Your task to perform on an android device: Show me productivity apps on the Play Store Image 0: 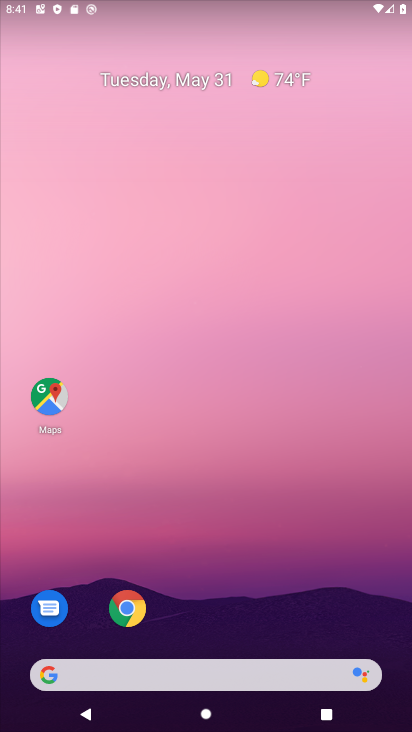
Step 0: drag from (201, 635) to (46, 39)
Your task to perform on an android device: Show me productivity apps on the Play Store Image 1: 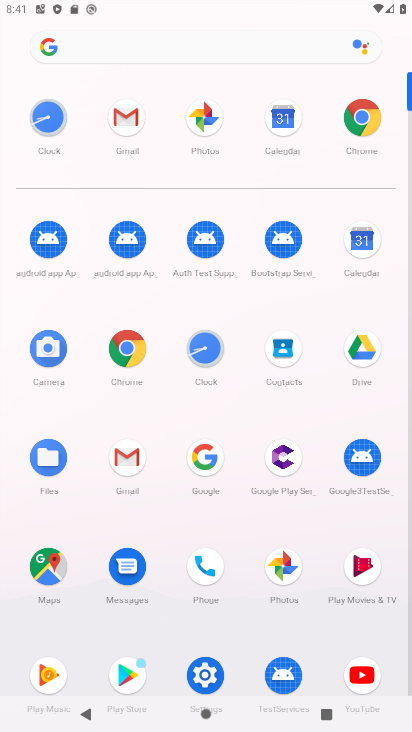
Step 1: click (131, 665)
Your task to perform on an android device: Show me productivity apps on the Play Store Image 2: 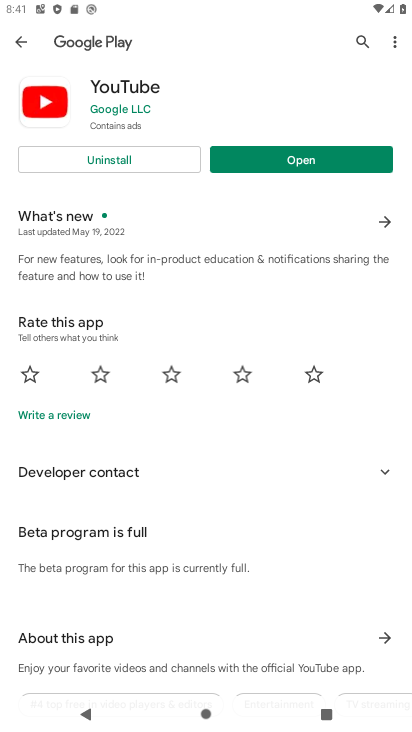
Step 2: click (25, 44)
Your task to perform on an android device: Show me productivity apps on the Play Store Image 3: 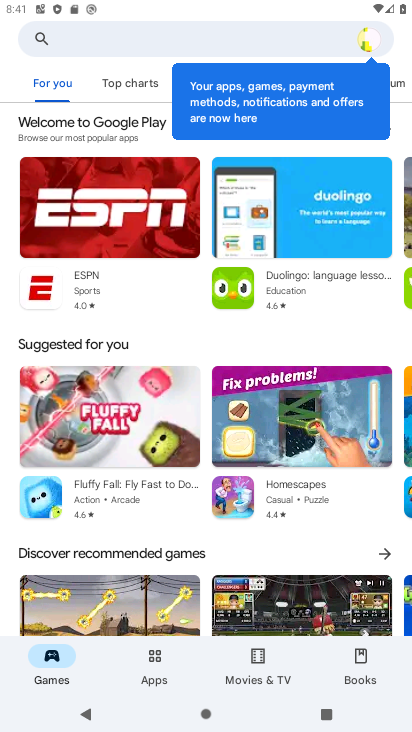
Step 3: click (152, 666)
Your task to perform on an android device: Show me productivity apps on the Play Store Image 4: 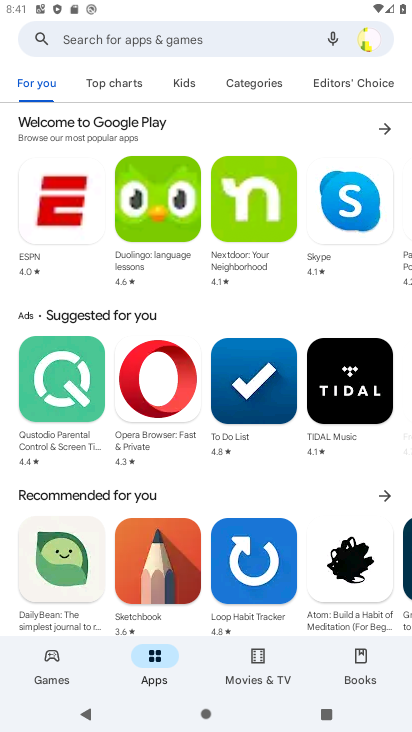
Step 4: click (244, 72)
Your task to perform on an android device: Show me productivity apps on the Play Store Image 5: 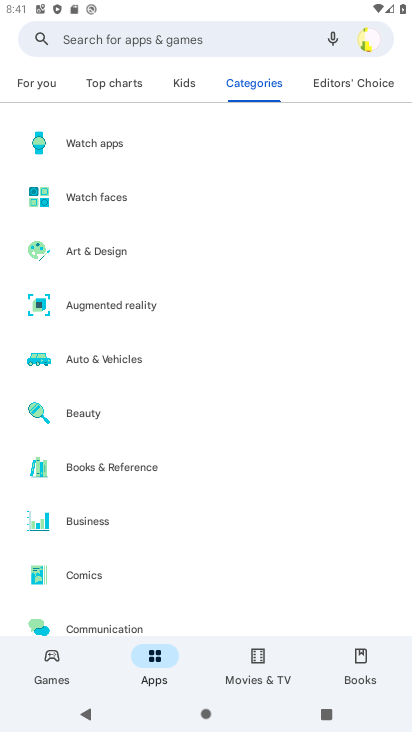
Step 5: drag from (205, 532) to (39, 17)
Your task to perform on an android device: Show me productivity apps on the Play Store Image 6: 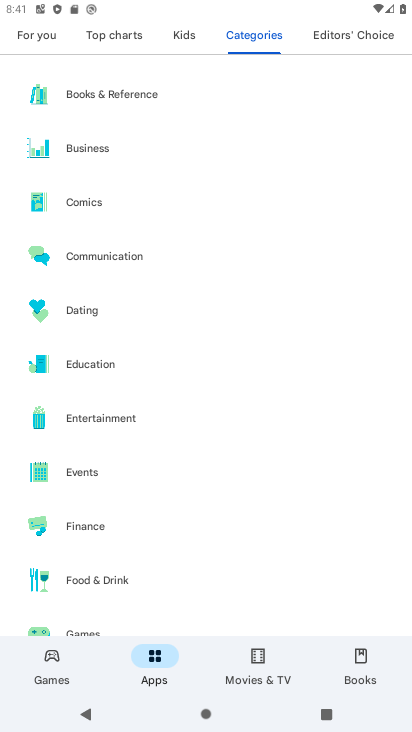
Step 6: drag from (146, 601) to (75, 135)
Your task to perform on an android device: Show me productivity apps on the Play Store Image 7: 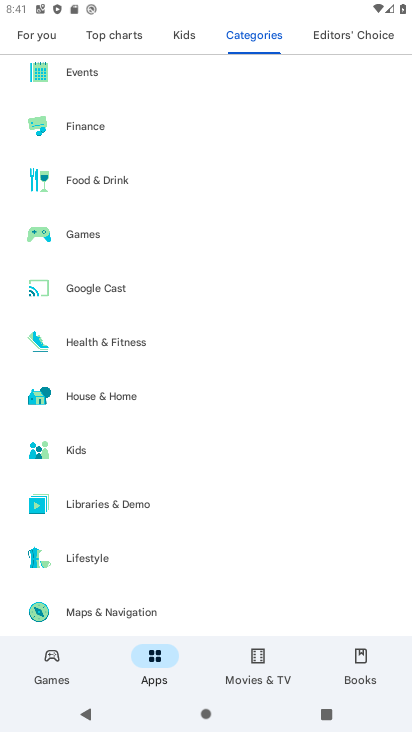
Step 7: drag from (218, 522) to (248, 189)
Your task to perform on an android device: Show me productivity apps on the Play Store Image 8: 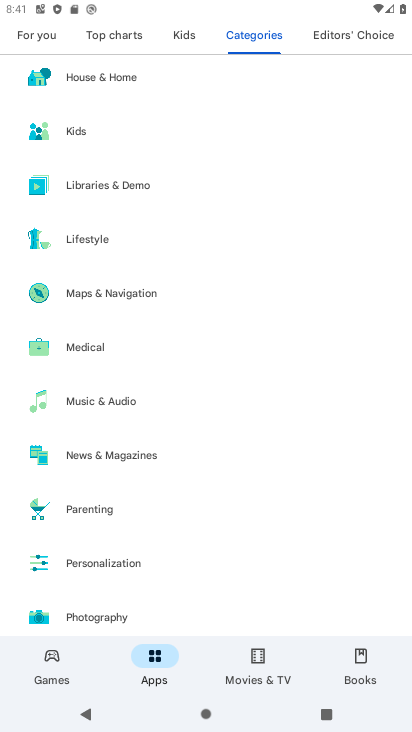
Step 8: drag from (152, 576) to (128, 134)
Your task to perform on an android device: Show me productivity apps on the Play Store Image 9: 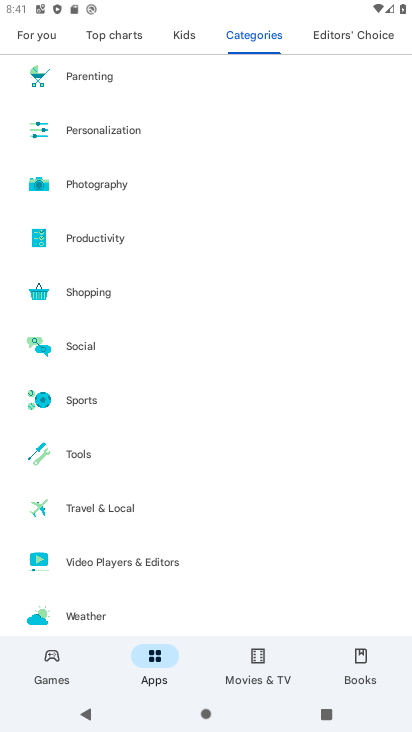
Step 9: click (83, 225)
Your task to perform on an android device: Show me productivity apps on the Play Store Image 10: 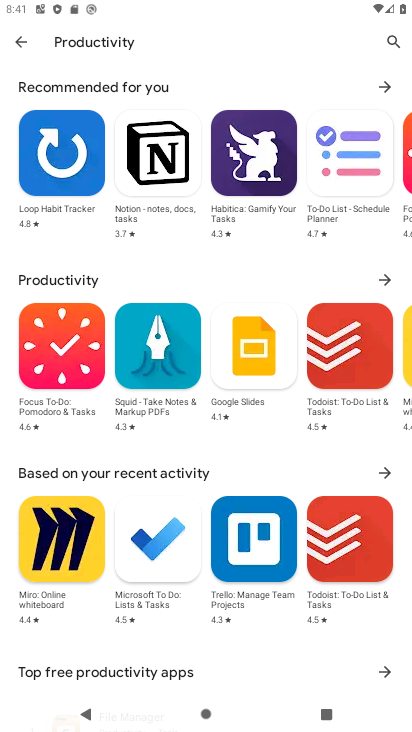
Step 10: task complete